Your task to perform on an android device: When is my next appointment? Image 0: 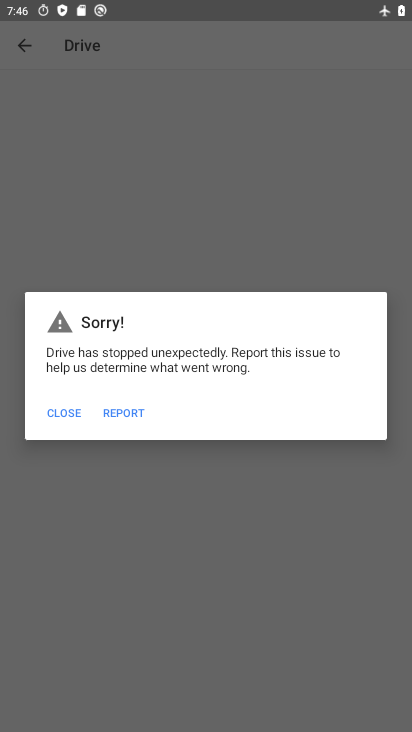
Step 0: press home button
Your task to perform on an android device: When is my next appointment? Image 1: 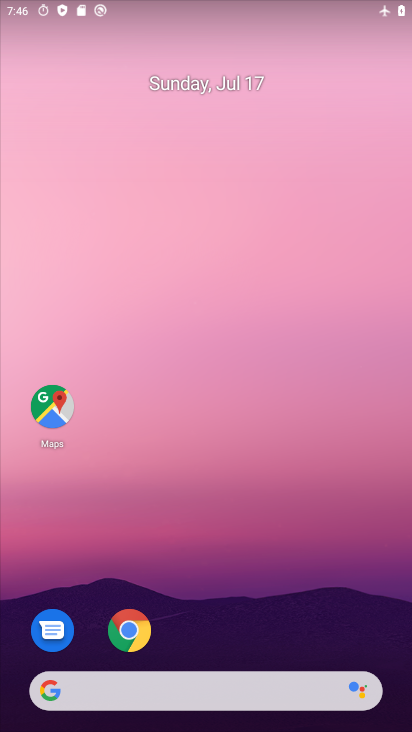
Step 1: drag from (257, 612) to (179, 7)
Your task to perform on an android device: When is my next appointment? Image 2: 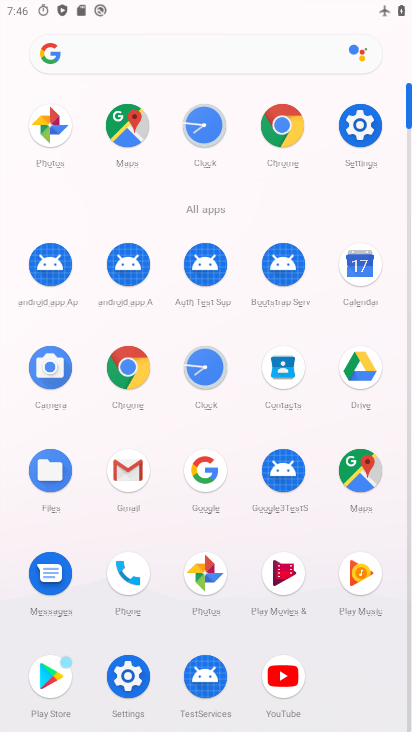
Step 2: click (359, 270)
Your task to perform on an android device: When is my next appointment? Image 3: 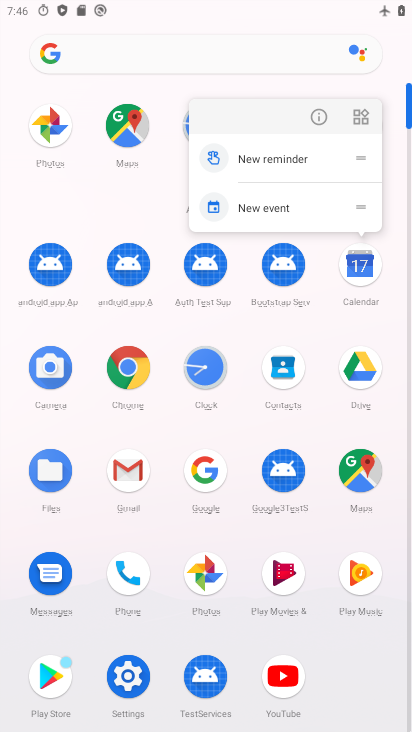
Step 3: click (351, 273)
Your task to perform on an android device: When is my next appointment? Image 4: 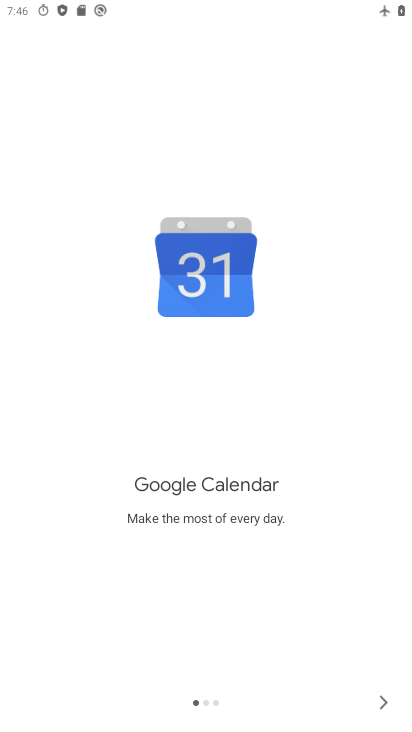
Step 4: click (388, 702)
Your task to perform on an android device: When is my next appointment? Image 5: 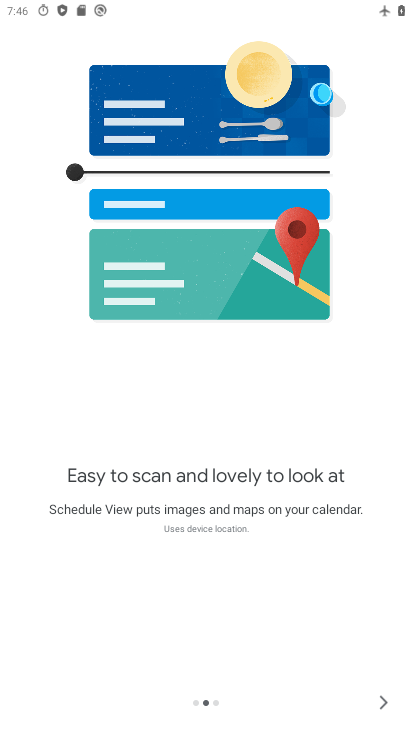
Step 5: click (388, 702)
Your task to perform on an android device: When is my next appointment? Image 6: 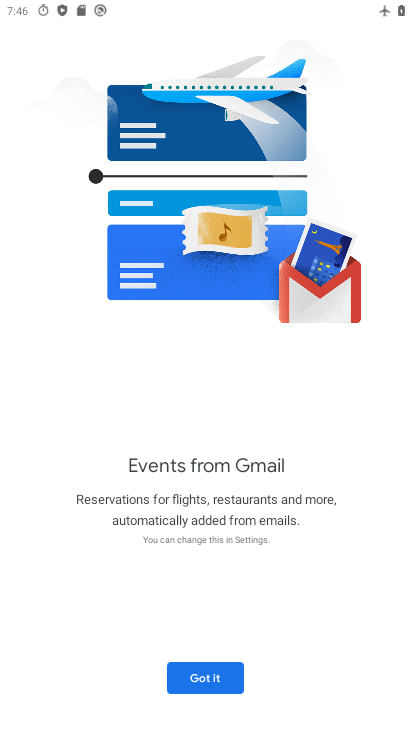
Step 6: click (218, 671)
Your task to perform on an android device: When is my next appointment? Image 7: 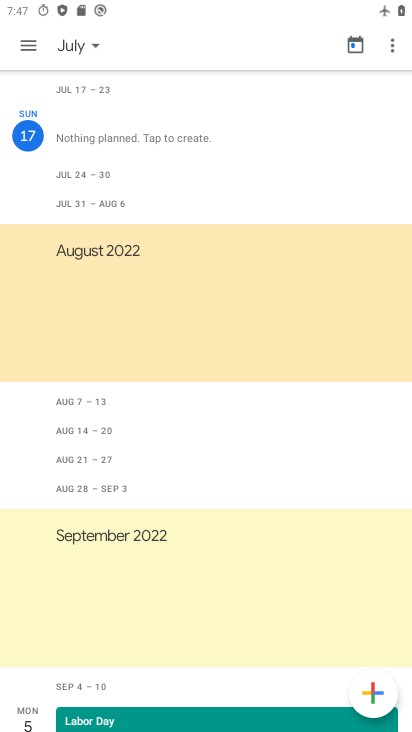
Step 7: click (71, 39)
Your task to perform on an android device: When is my next appointment? Image 8: 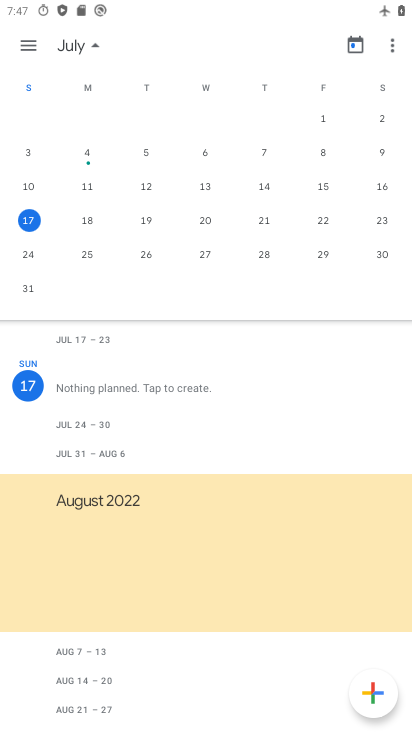
Step 8: task complete